Your task to perform on an android device: turn notification dots off Image 0: 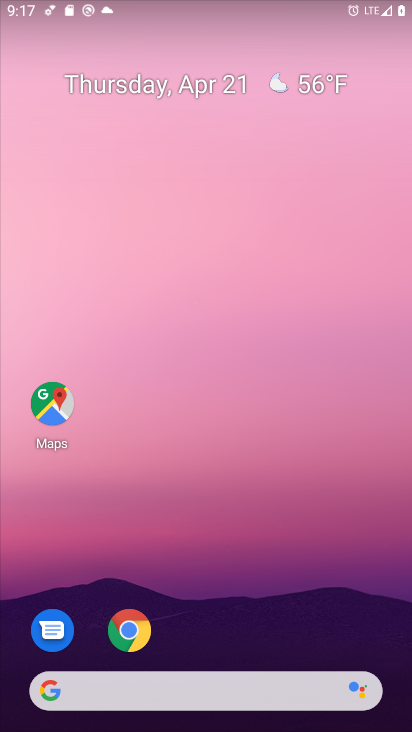
Step 0: drag from (189, 586) to (214, 10)
Your task to perform on an android device: turn notification dots off Image 1: 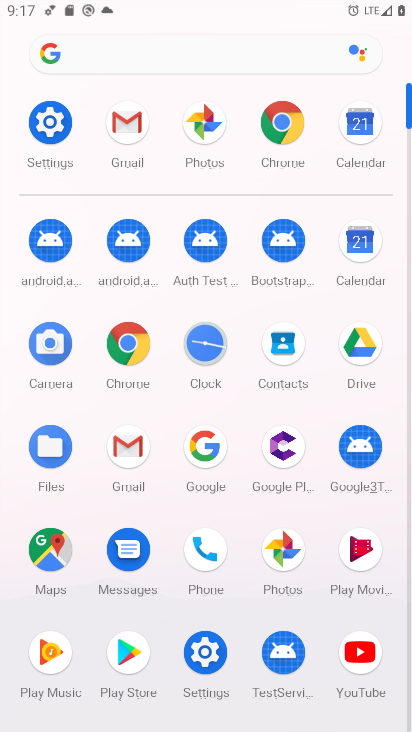
Step 1: click (40, 126)
Your task to perform on an android device: turn notification dots off Image 2: 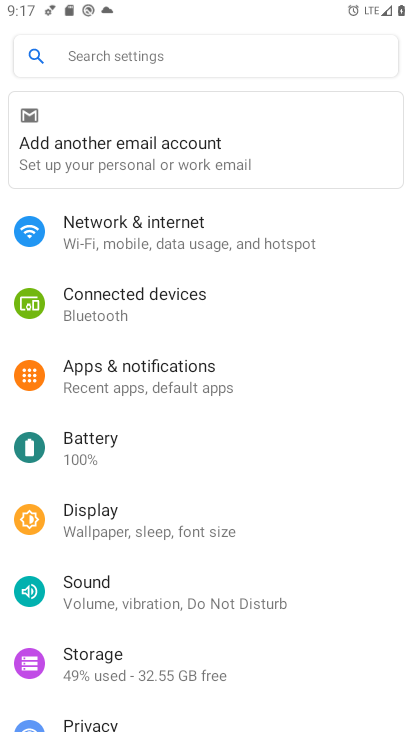
Step 2: click (149, 362)
Your task to perform on an android device: turn notification dots off Image 3: 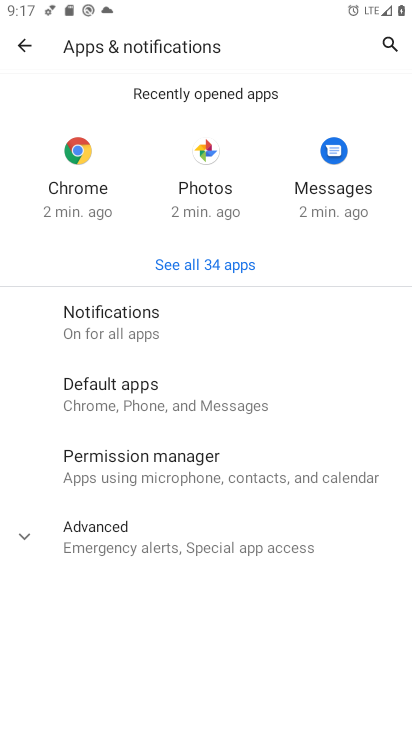
Step 3: click (129, 332)
Your task to perform on an android device: turn notification dots off Image 4: 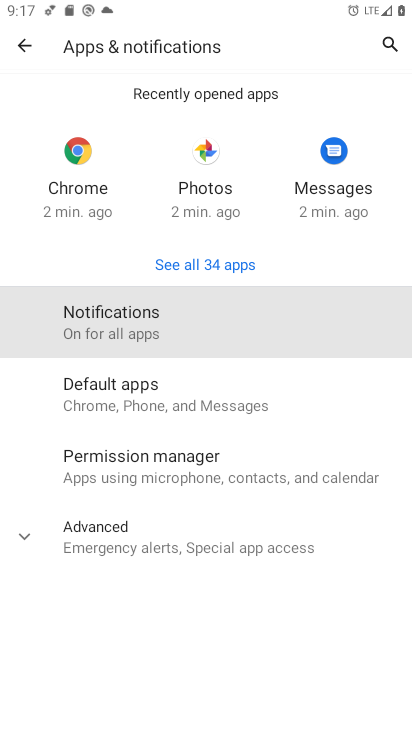
Step 4: click (126, 331)
Your task to perform on an android device: turn notification dots off Image 5: 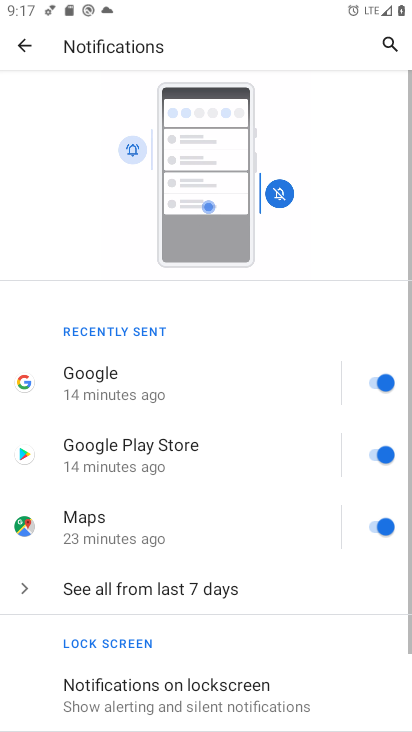
Step 5: drag from (206, 560) to (204, 170)
Your task to perform on an android device: turn notification dots off Image 6: 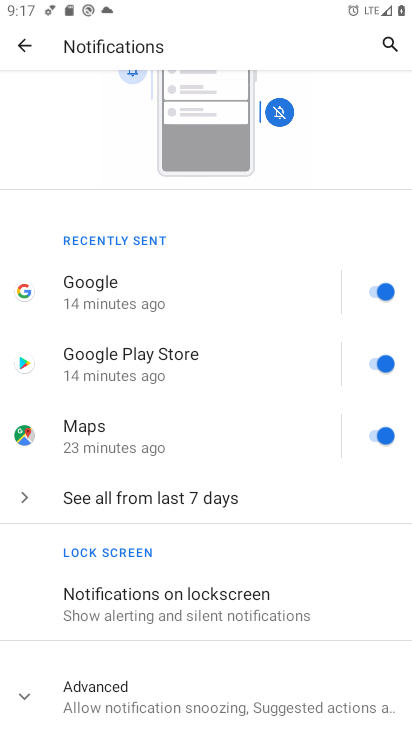
Step 6: drag from (183, 618) to (217, 342)
Your task to perform on an android device: turn notification dots off Image 7: 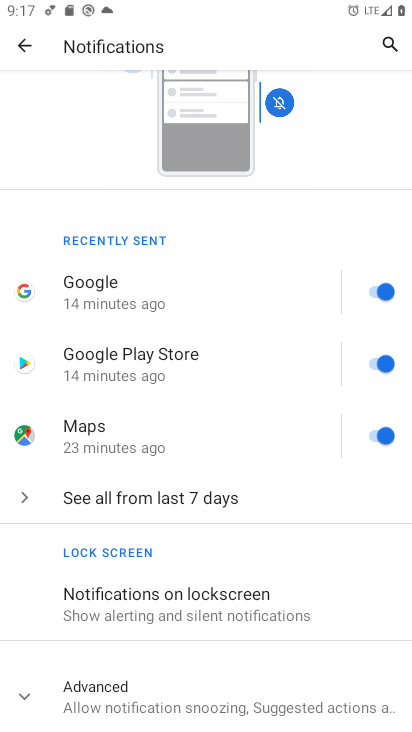
Step 7: click (137, 690)
Your task to perform on an android device: turn notification dots off Image 8: 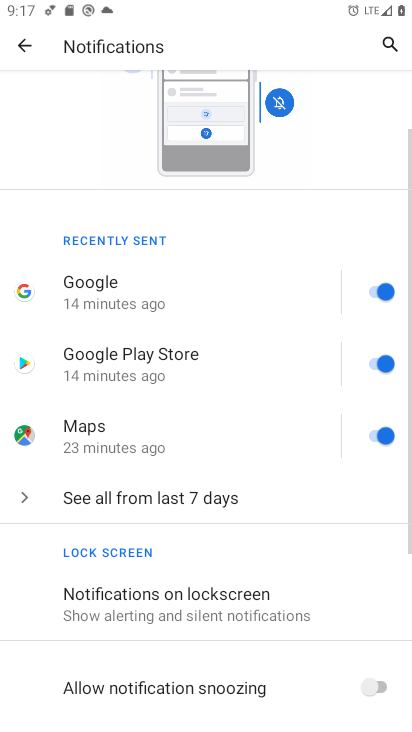
Step 8: drag from (138, 667) to (148, 306)
Your task to perform on an android device: turn notification dots off Image 9: 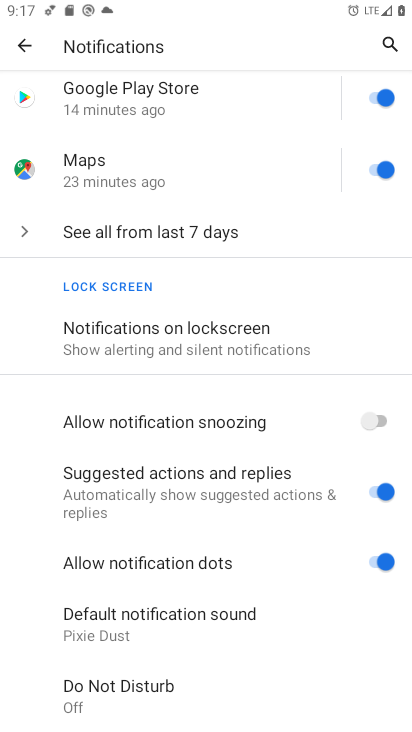
Step 9: click (368, 563)
Your task to perform on an android device: turn notification dots off Image 10: 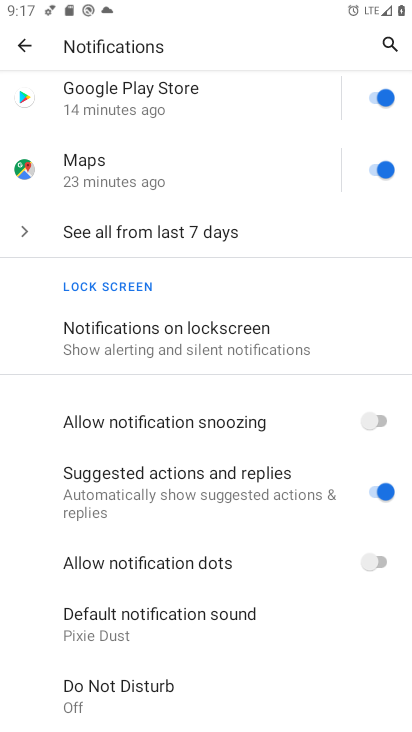
Step 10: task complete